Your task to perform on an android device: search for starred emails in the gmail app Image 0: 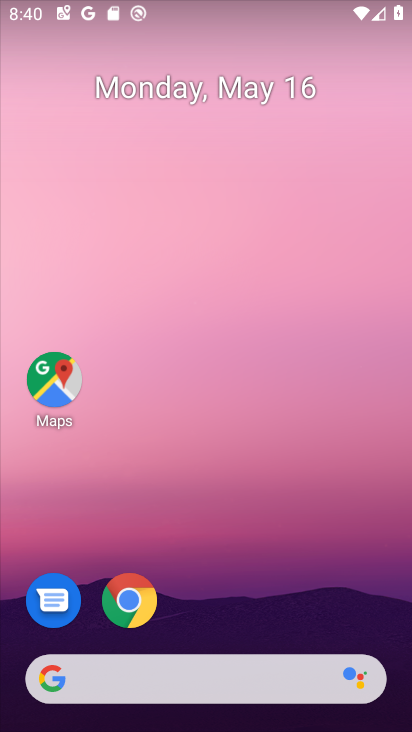
Step 0: drag from (263, 480) to (165, 139)
Your task to perform on an android device: search for starred emails in the gmail app Image 1: 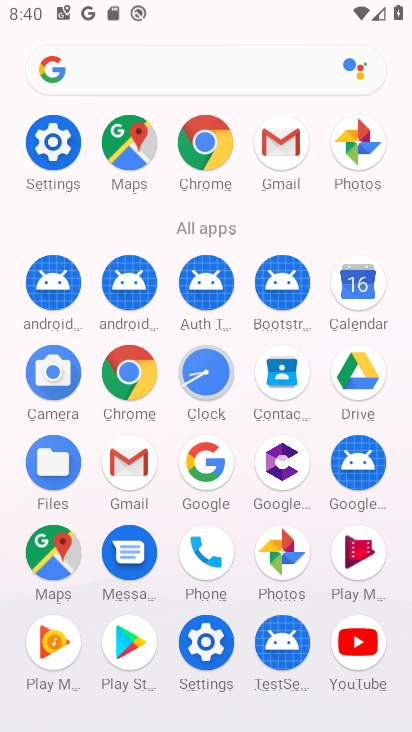
Step 1: click (127, 458)
Your task to perform on an android device: search for starred emails in the gmail app Image 2: 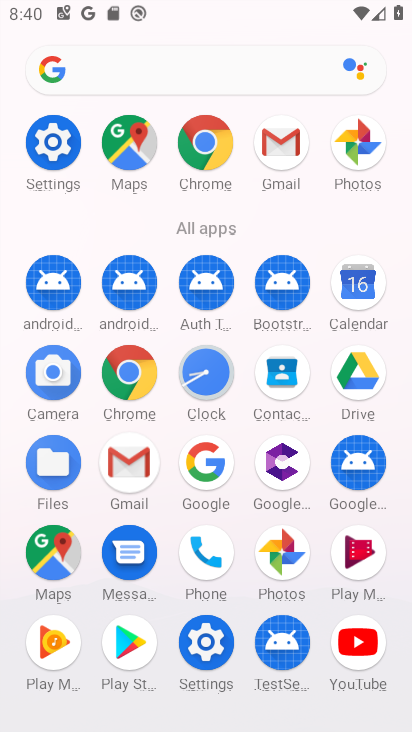
Step 2: click (127, 458)
Your task to perform on an android device: search for starred emails in the gmail app Image 3: 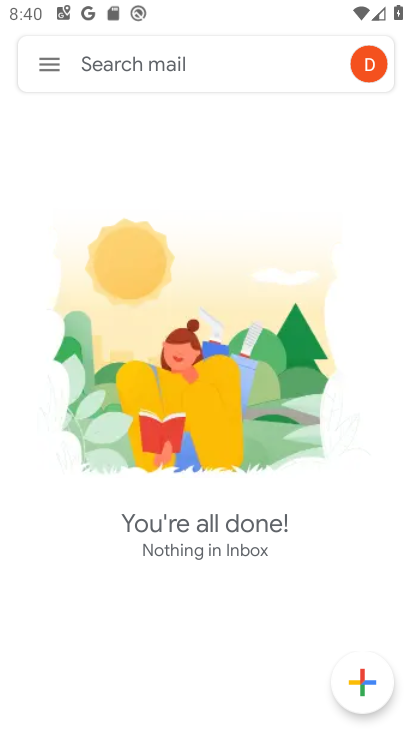
Step 3: click (55, 66)
Your task to perform on an android device: search for starred emails in the gmail app Image 4: 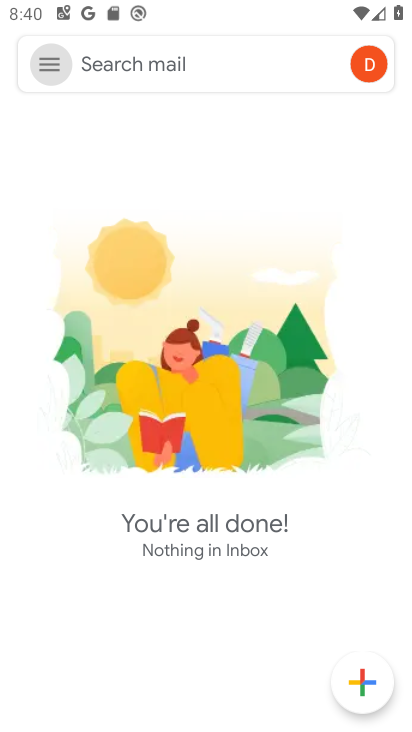
Step 4: click (51, 60)
Your task to perform on an android device: search for starred emails in the gmail app Image 5: 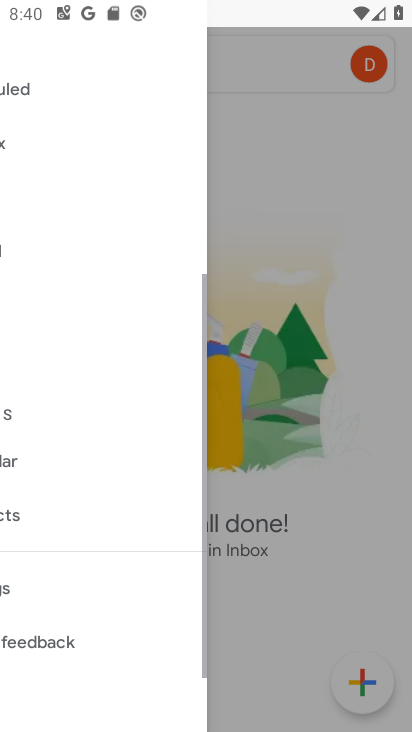
Step 5: click (51, 60)
Your task to perform on an android device: search for starred emails in the gmail app Image 6: 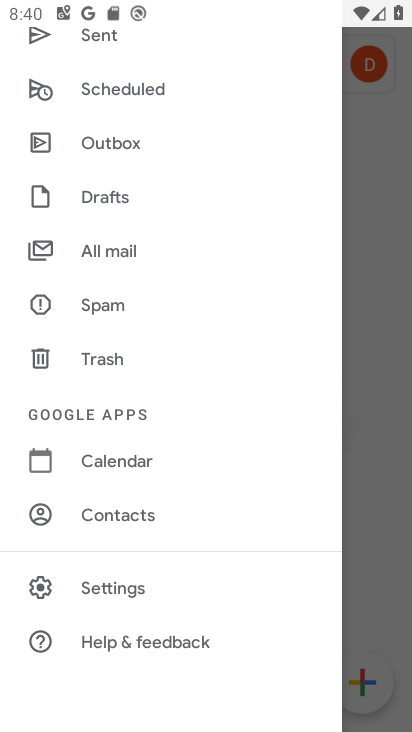
Step 6: drag from (136, 112) to (147, 521)
Your task to perform on an android device: search for starred emails in the gmail app Image 7: 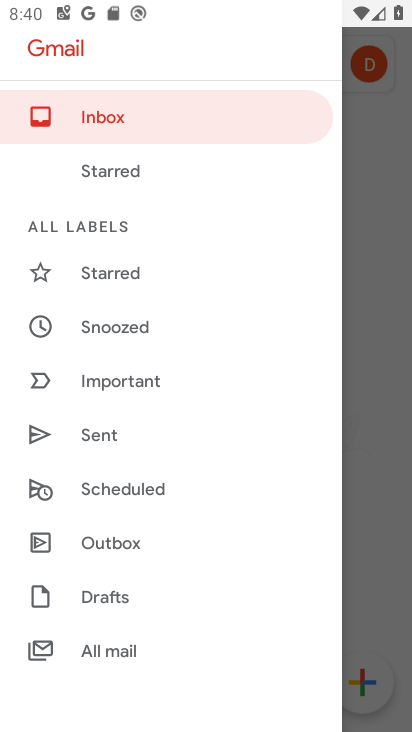
Step 7: click (123, 277)
Your task to perform on an android device: search for starred emails in the gmail app Image 8: 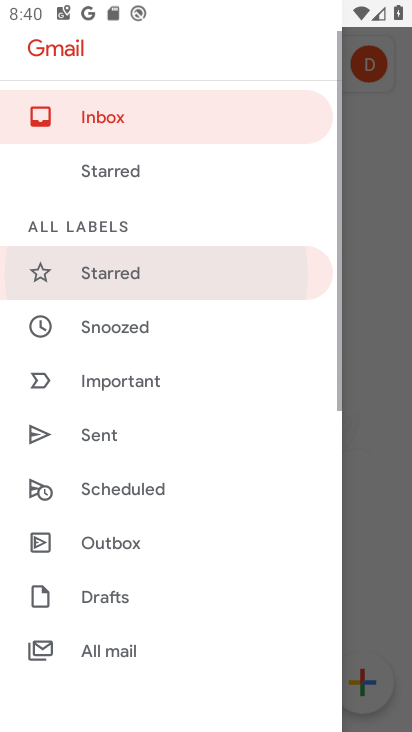
Step 8: click (122, 276)
Your task to perform on an android device: search for starred emails in the gmail app Image 9: 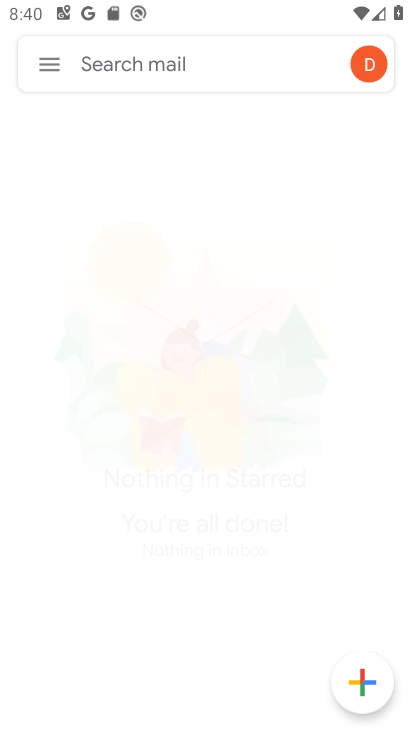
Step 9: click (120, 276)
Your task to perform on an android device: search for starred emails in the gmail app Image 10: 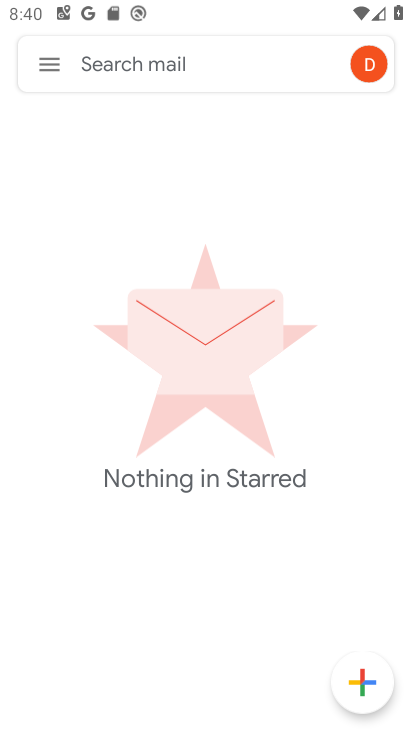
Step 10: task complete